Your task to perform on an android device: View the shopping cart on bestbuy.com. Image 0: 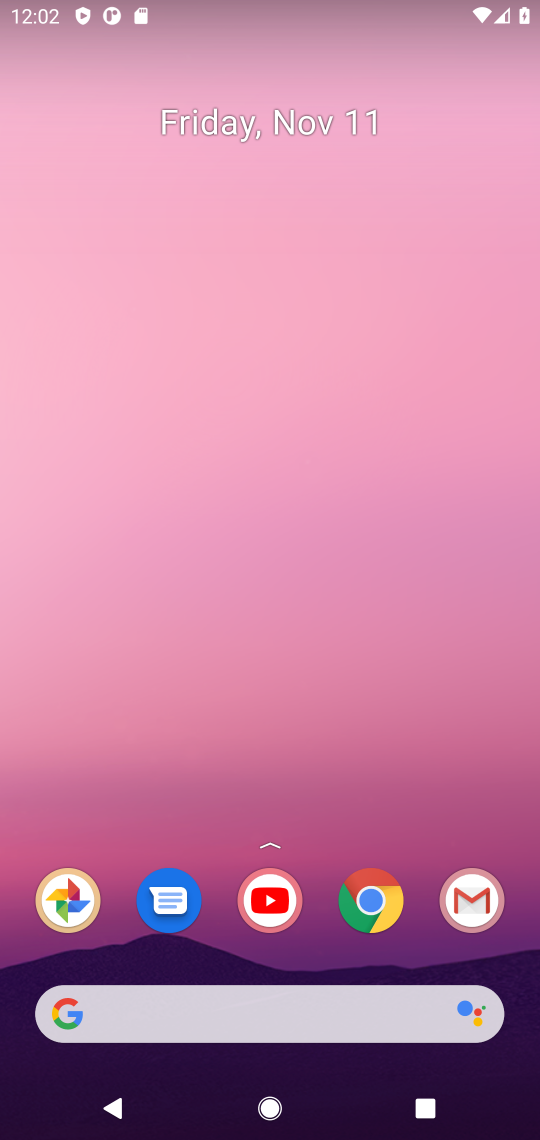
Step 0: click (379, 912)
Your task to perform on an android device: View the shopping cart on bestbuy.com. Image 1: 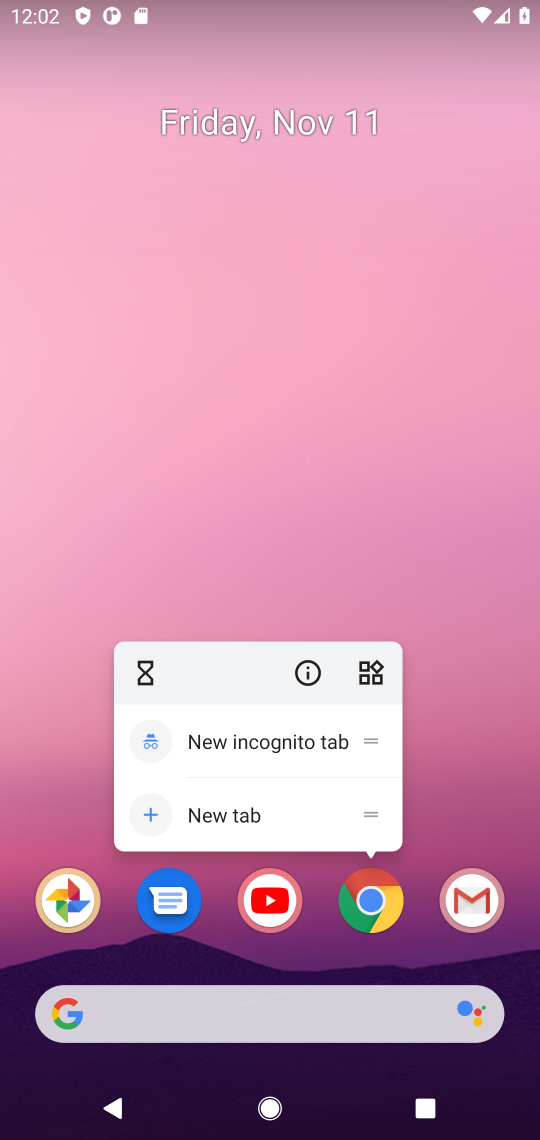
Step 1: click (367, 907)
Your task to perform on an android device: View the shopping cart on bestbuy.com. Image 2: 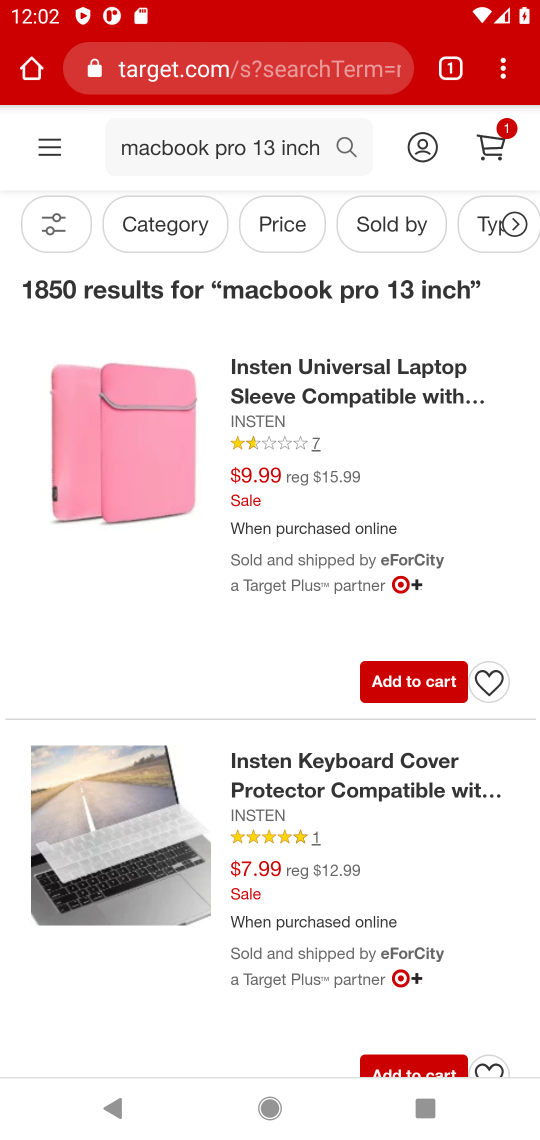
Step 2: click (344, 74)
Your task to perform on an android device: View the shopping cart on bestbuy.com. Image 3: 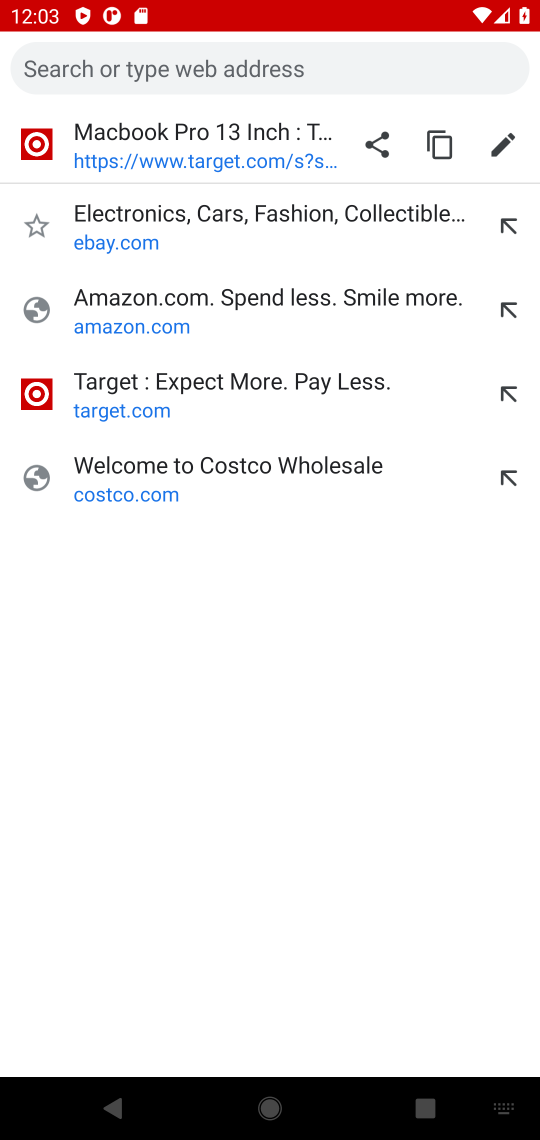
Step 3: type " bestbuy.com"
Your task to perform on an android device: View the shopping cart on bestbuy.com. Image 4: 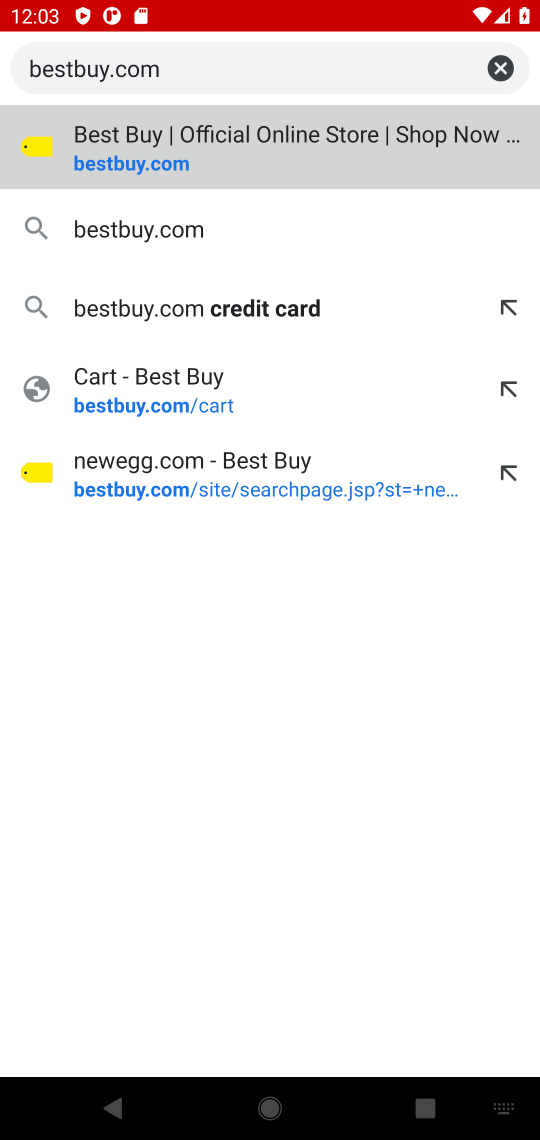
Step 4: press enter
Your task to perform on an android device: View the shopping cart on bestbuy.com. Image 5: 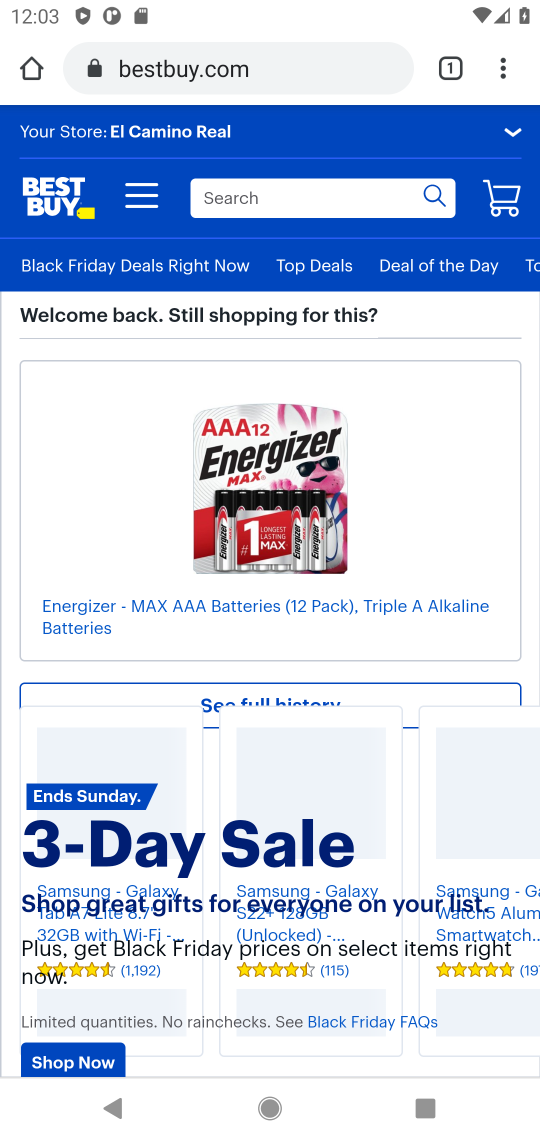
Step 5: click (335, 198)
Your task to perform on an android device: View the shopping cart on bestbuy.com. Image 6: 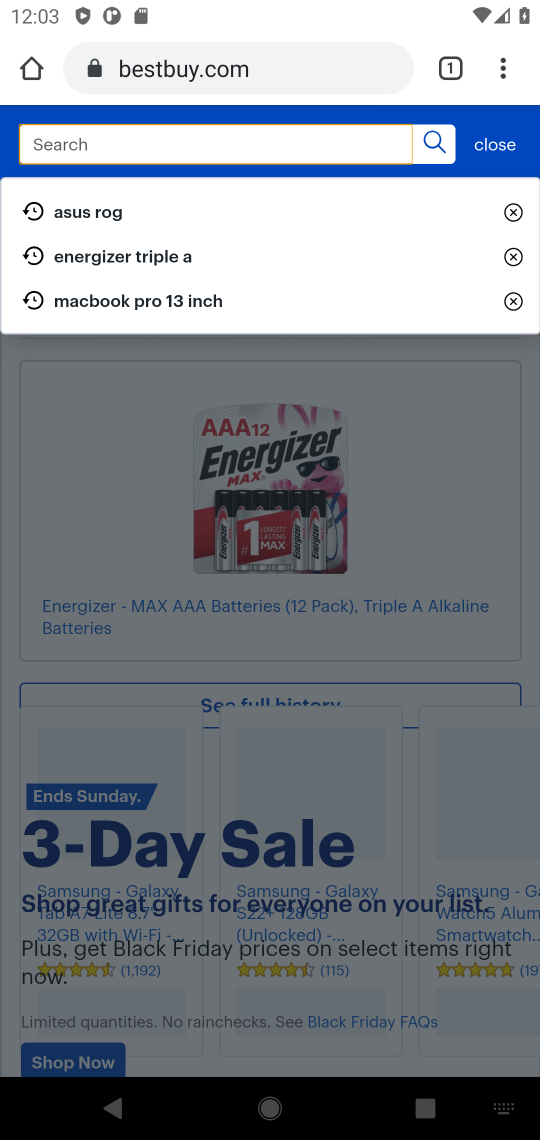
Step 6: click (505, 144)
Your task to perform on an android device: View the shopping cart on bestbuy.com. Image 7: 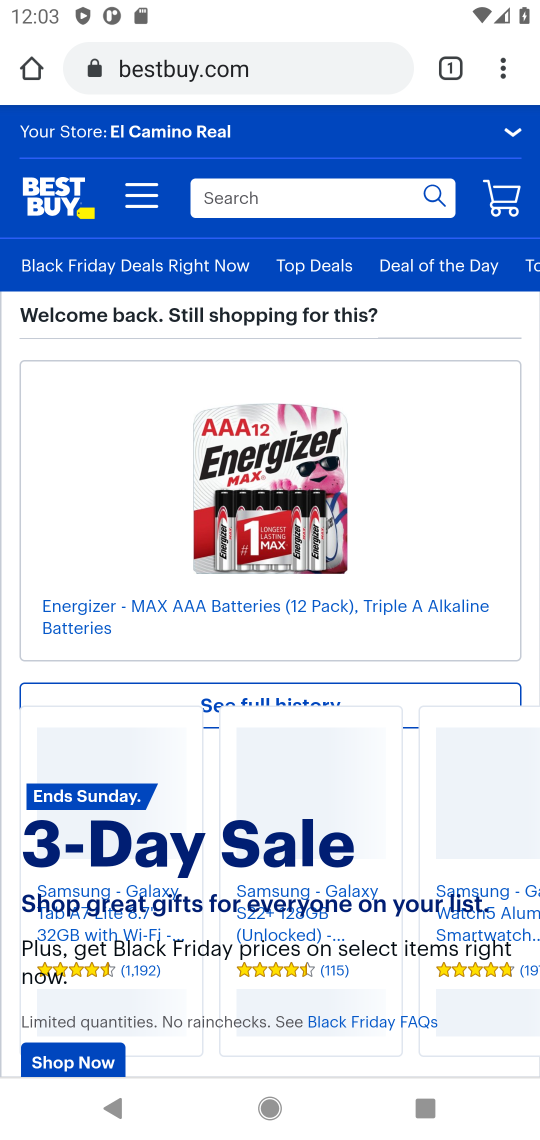
Step 7: click (500, 192)
Your task to perform on an android device: View the shopping cart on bestbuy.com. Image 8: 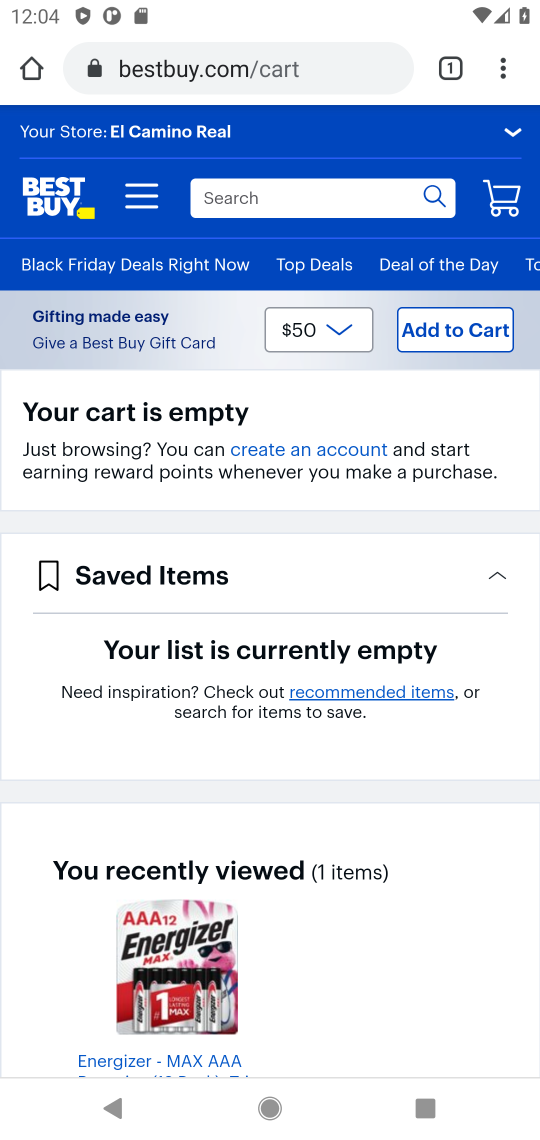
Step 8: task complete